Your task to perform on an android device: Go to privacy settings Image 0: 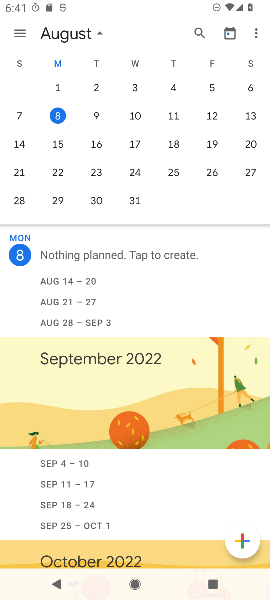
Step 0: press home button
Your task to perform on an android device: Go to privacy settings Image 1: 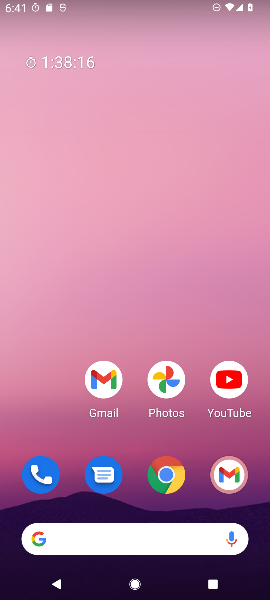
Step 1: drag from (55, 446) to (58, 162)
Your task to perform on an android device: Go to privacy settings Image 2: 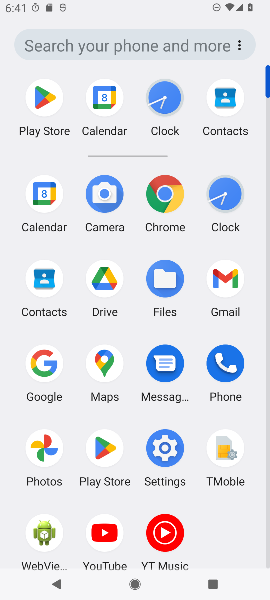
Step 2: click (163, 453)
Your task to perform on an android device: Go to privacy settings Image 3: 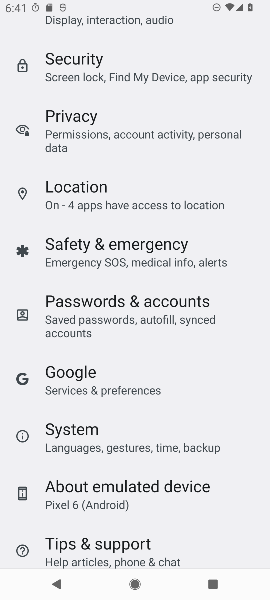
Step 3: drag from (247, 194) to (247, 298)
Your task to perform on an android device: Go to privacy settings Image 4: 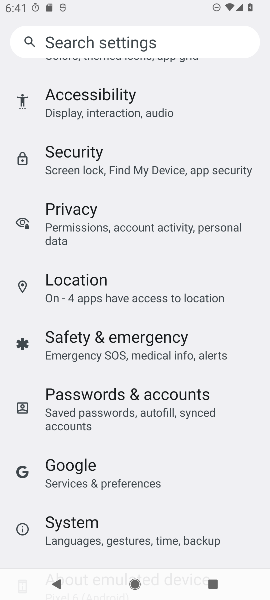
Step 4: drag from (251, 182) to (243, 311)
Your task to perform on an android device: Go to privacy settings Image 5: 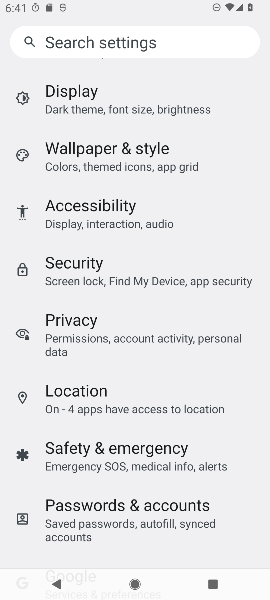
Step 5: drag from (238, 195) to (246, 301)
Your task to perform on an android device: Go to privacy settings Image 6: 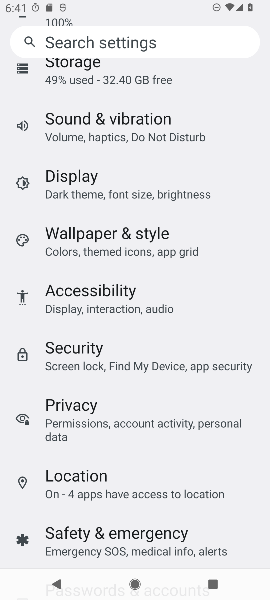
Step 6: drag from (245, 109) to (248, 269)
Your task to perform on an android device: Go to privacy settings Image 7: 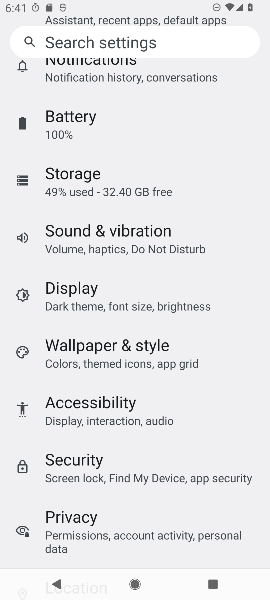
Step 7: drag from (236, 117) to (242, 281)
Your task to perform on an android device: Go to privacy settings Image 8: 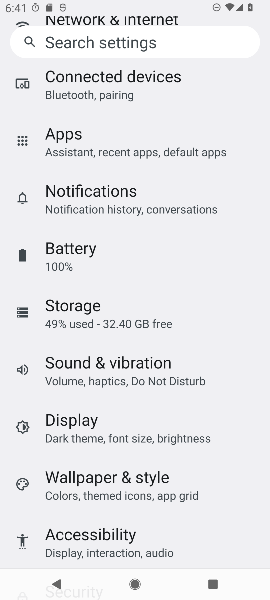
Step 8: drag from (242, 105) to (239, 228)
Your task to perform on an android device: Go to privacy settings Image 9: 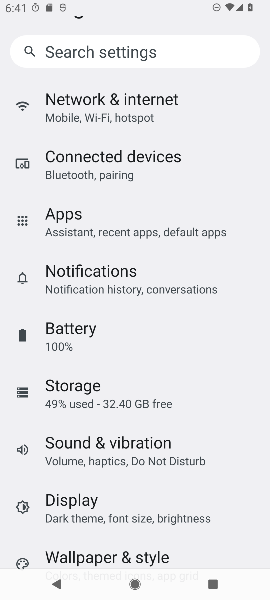
Step 9: drag from (241, 98) to (242, 214)
Your task to perform on an android device: Go to privacy settings Image 10: 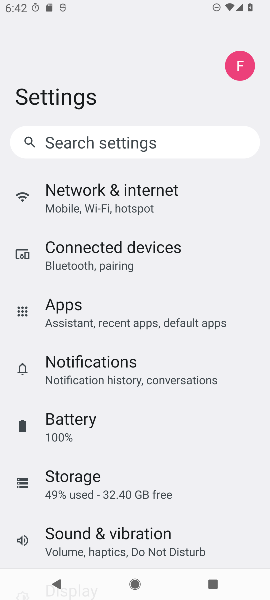
Step 10: drag from (232, 379) to (240, 268)
Your task to perform on an android device: Go to privacy settings Image 11: 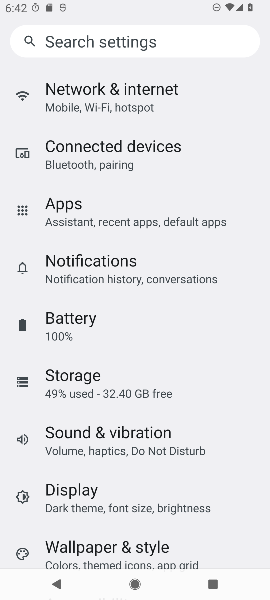
Step 11: drag from (233, 350) to (232, 271)
Your task to perform on an android device: Go to privacy settings Image 12: 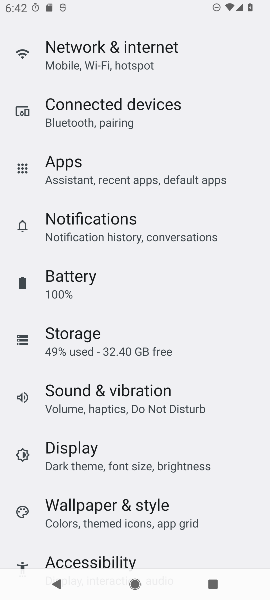
Step 12: drag from (229, 367) to (229, 263)
Your task to perform on an android device: Go to privacy settings Image 13: 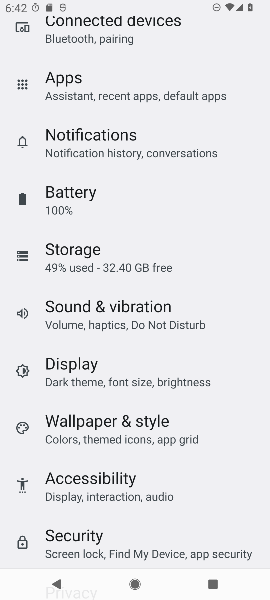
Step 13: drag from (230, 377) to (230, 265)
Your task to perform on an android device: Go to privacy settings Image 14: 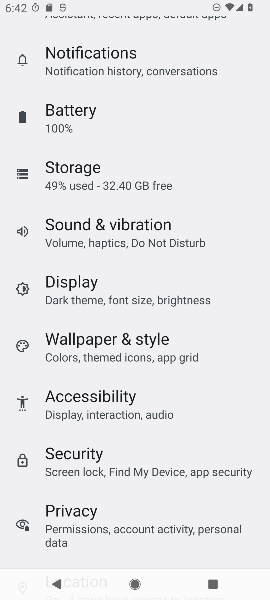
Step 14: drag from (212, 407) to (228, 266)
Your task to perform on an android device: Go to privacy settings Image 15: 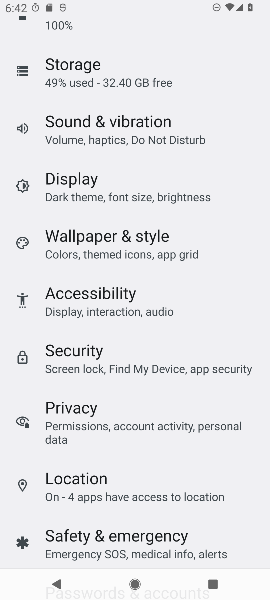
Step 15: click (198, 438)
Your task to perform on an android device: Go to privacy settings Image 16: 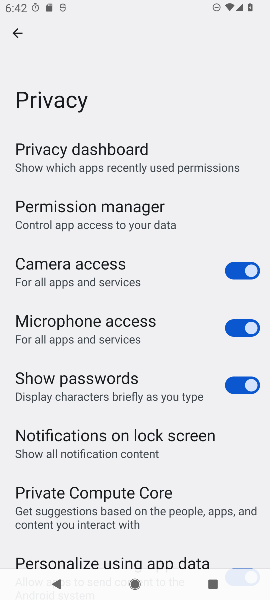
Step 16: task complete